Your task to perform on an android device: search for starred emails in the gmail app Image 0: 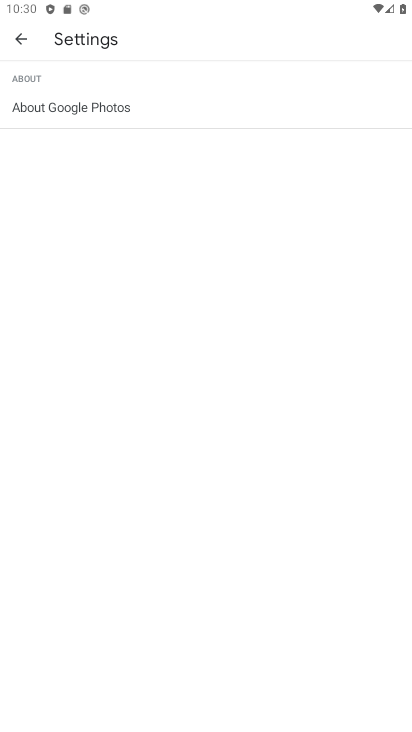
Step 0: press home button
Your task to perform on an android device: search for starred emails in the gmail app Image 1: 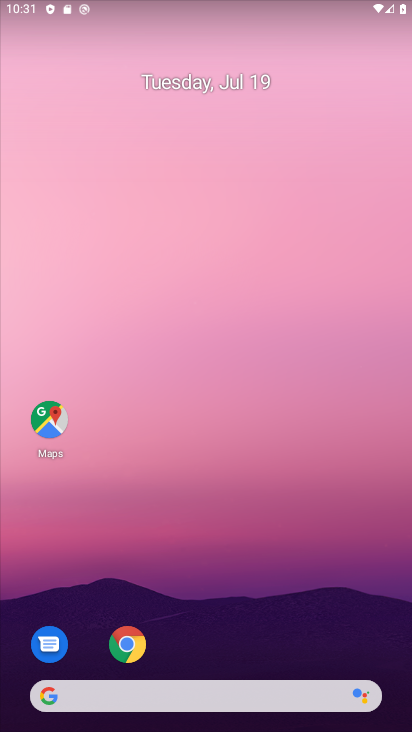
Step 1: drag from (241, 586) to (247, 151)
Your task to perform on an android device: search for starred emails in the gmail app Image 2: 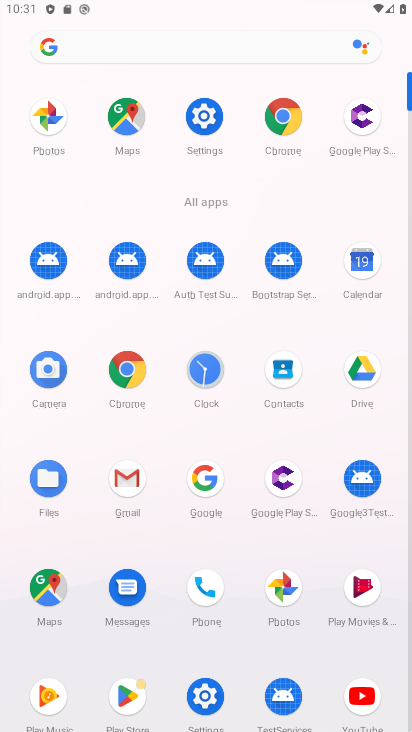
Step 2: click (128, 472)
Your task to perform on an android device: search for starred emails in the gmail app Image 3: 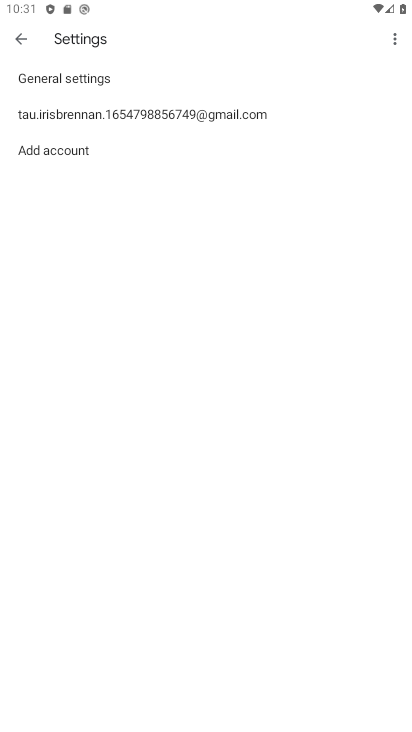
Step 3: click (21, 35)
Your task to perform on an android device: search for starred emails in the gmail app Image 4: 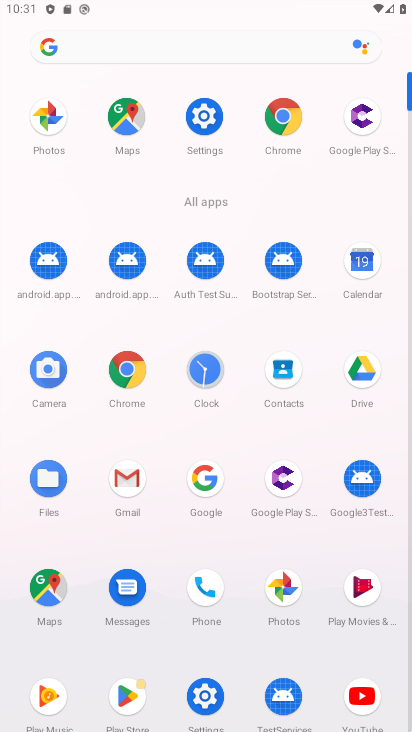
Step 4: click (127, 470)
Your task to perform on an android device: search for starred emails in the gmail app Image 5: 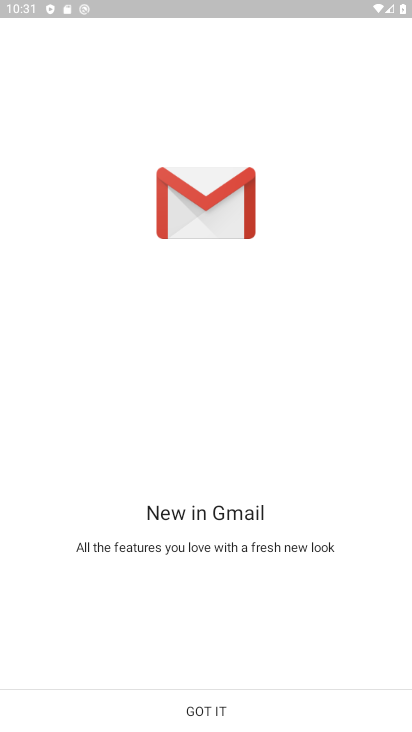
Step 5: click (207, 704)
Your task to perform on an android device: search for starred emails in the gmail app Image 6: 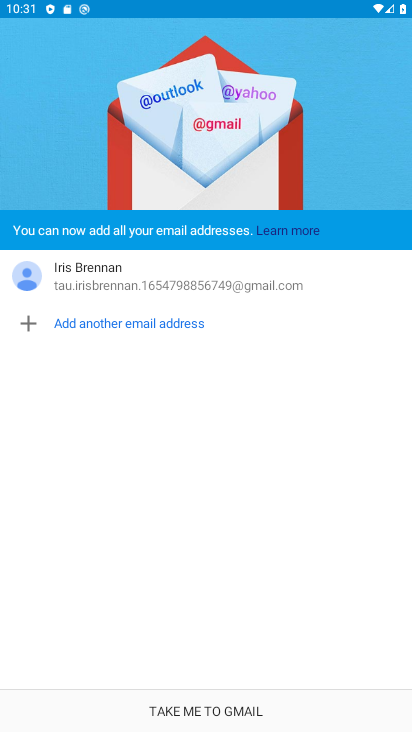
Step 6: click (207, 704)
Your task to perform on an android device: search for starred emails in the gmail app Image 7: 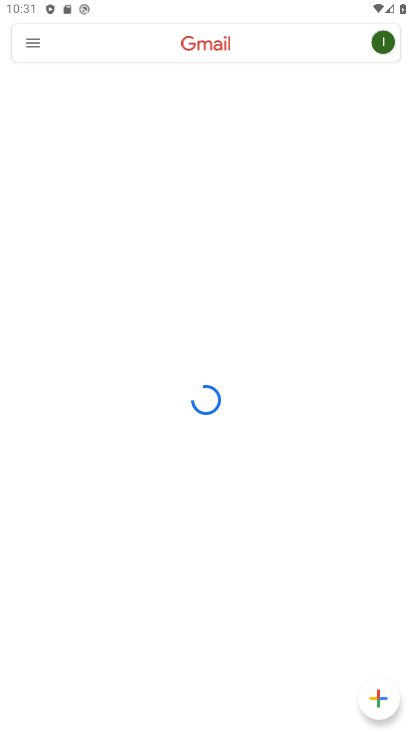
Step 7: click (30, 42)
Your task to perform on an android device: search for starred emails in the gmail app Image 8: 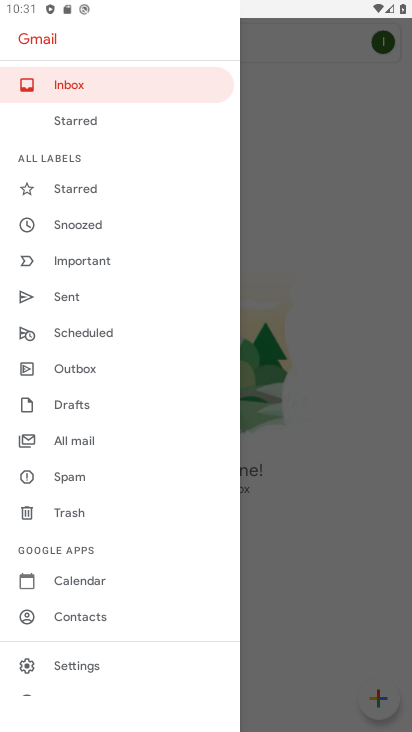
Step 8: click (76, 118)
Your task to perform on an android device: search for starred emails in the gmail app Image 9: 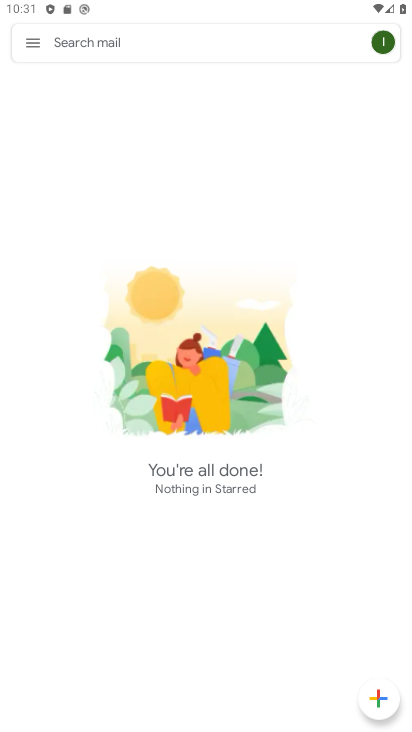
Step 9: task complete